Your task to perform on an android device: turn off location Image 0: 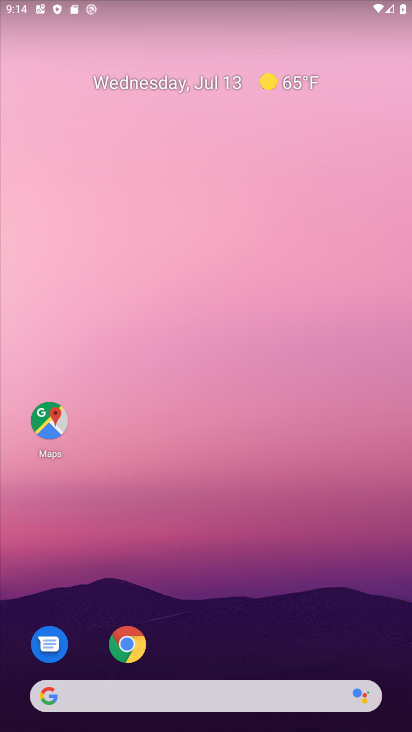
Step 0: drag from (313, 619) to (274, 55)
Your task to perform on an android device: turn off location Image 1: 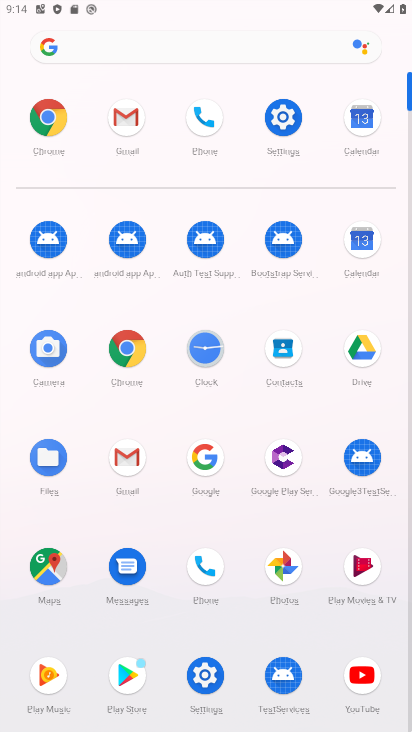
Step 1: click (289, 108)
Your task to perform on an android device: turn off location Image 2: 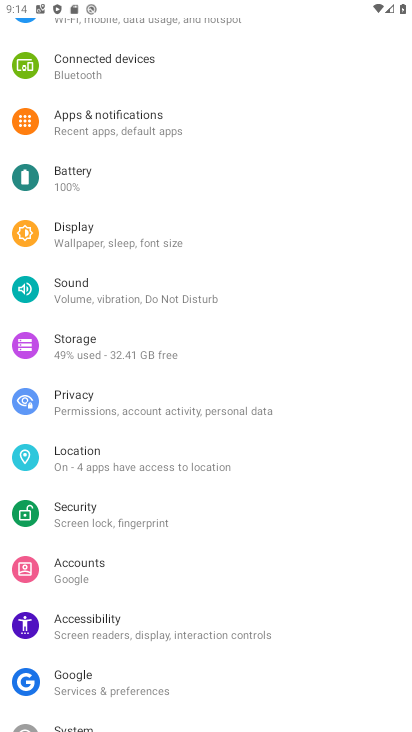
Step 2: click (96, 458)
Your task to perform on an android device: turn off location Image 3: 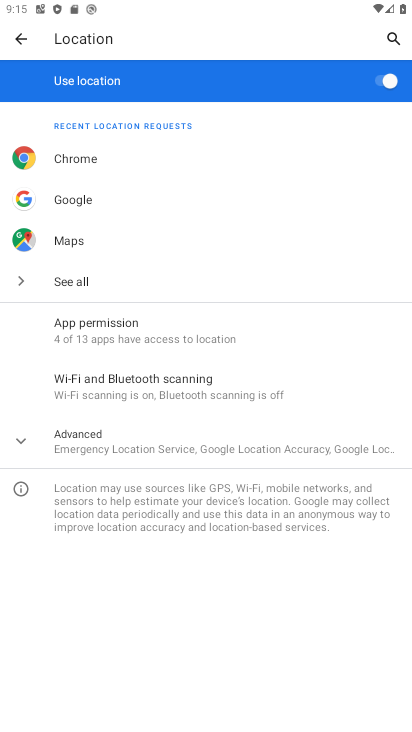
Step 3: click (366, 82)
Your task to perform on an android device: turn off location Image 4: 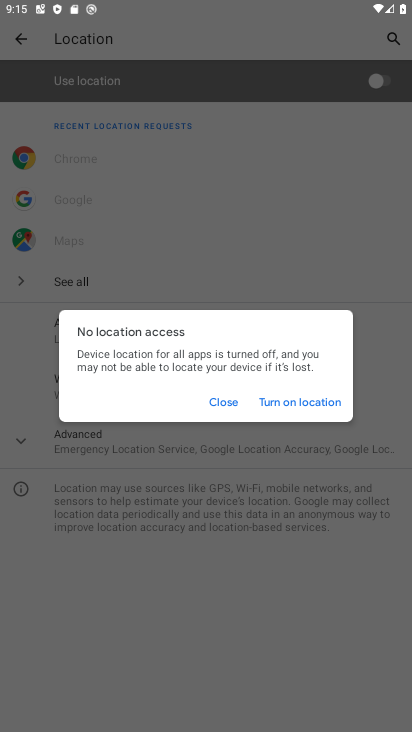
Step 4: task complete